Your task to perform on an android device: Open Wikipedia Image 0: 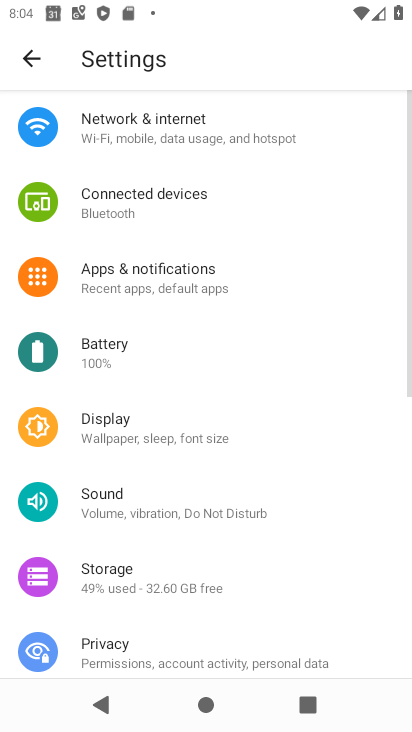
Step 0: press home button
Your task to perform on an android device: Open Wikipedia Image 1: 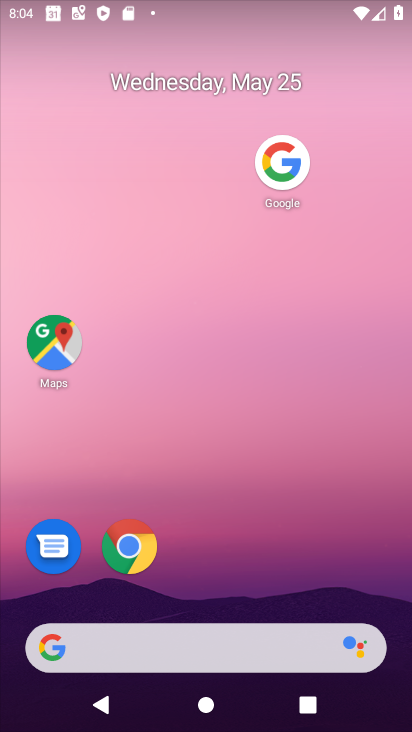
Step 1: click (137, 554)
Your task to perform on an android device: Open Wikipedia Image 2: 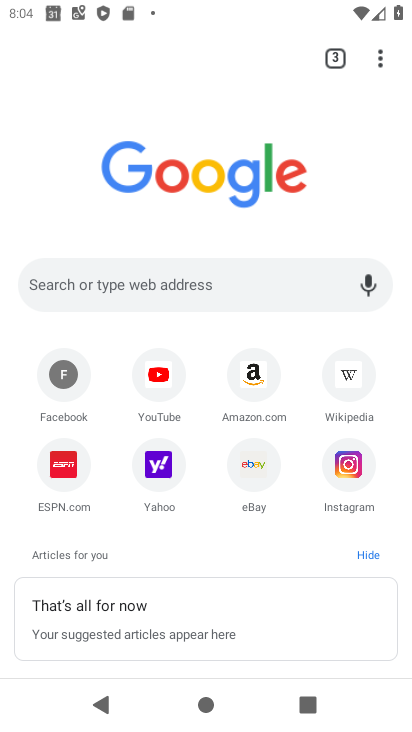
Step 2: click (343, 387)
Your task to perform on an android device: Open Wikipedia Image 3: 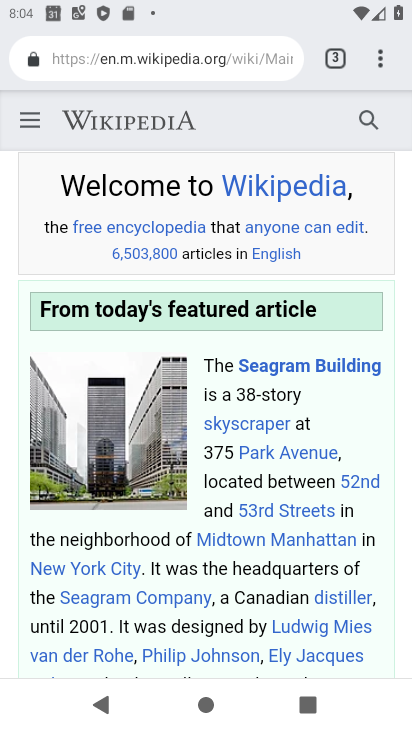
Step 3: click (223, 585)
Your task to perform on an android device: Open Wikipedia Image 4: 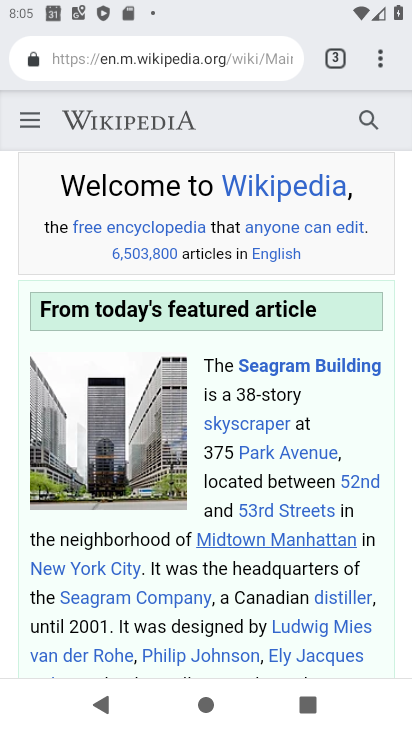
Step 4: task complete